Your task to perform on an android device: Go to settings Image 0: 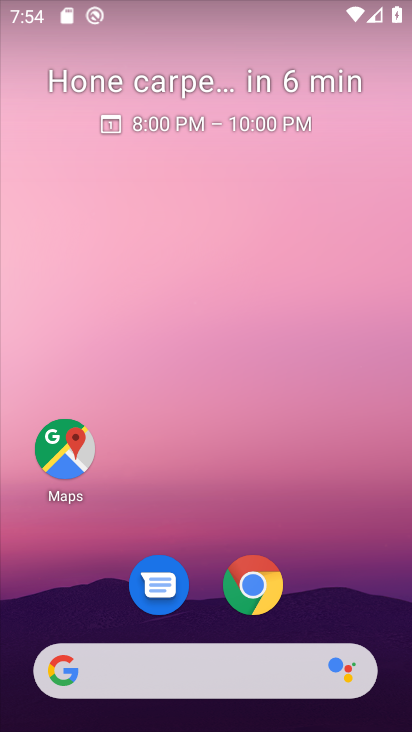
Step 0: drag from (321, 555) to (274, 29)
Your task to perform on an android device: Go to settings Image 1: 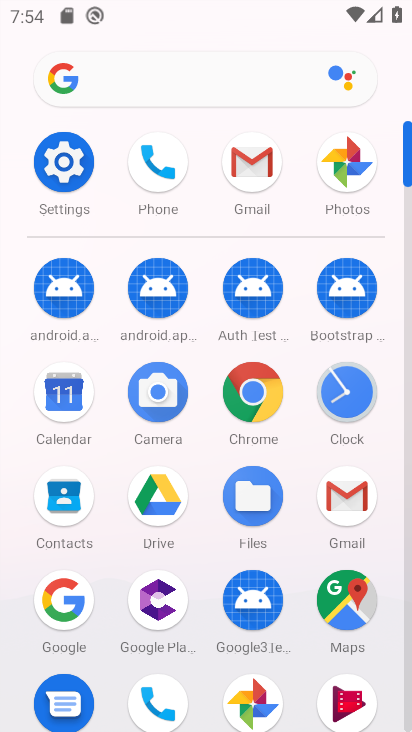
Step 1: click (74, 150)
Your task to perform on an android device: Go to settings Image 2: 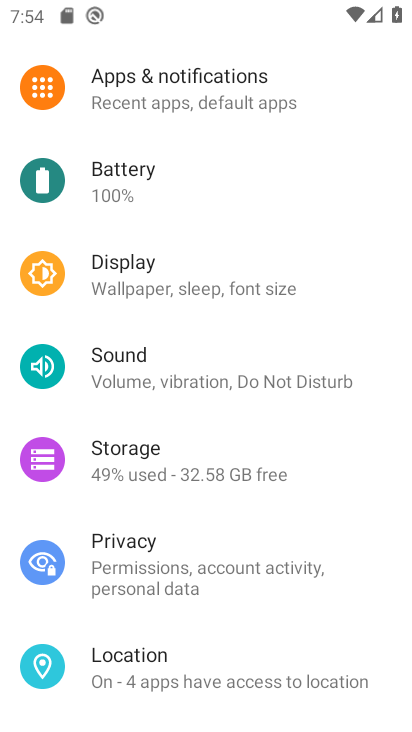
Step 2: task complete